Your task to perform on an android device: turn off wifi Image 0: 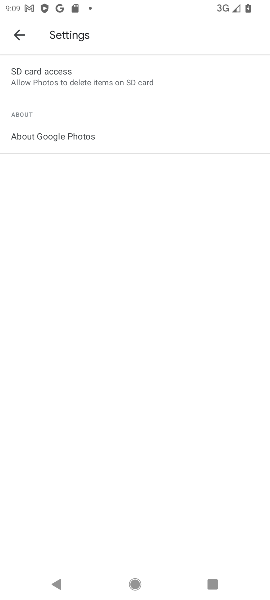
Step 0: press home button
Your task to perform on an android device: turn off wifi Image 1: 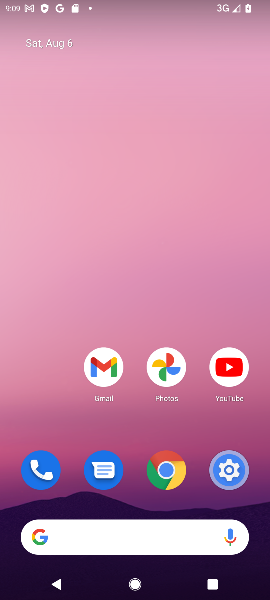
Step 1: drag from (159, 508) to (154, 23)
Your task to perform on an android device: turn off wifi Image 2: 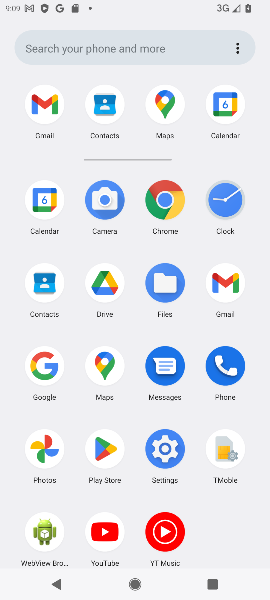
Step 2: click (178, 452)
Your task to perform on an android device: turn off wifi Image 3: 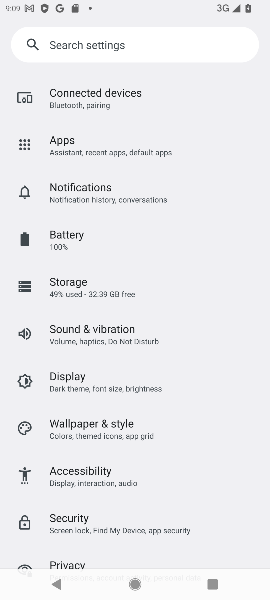
Step 3: drag from (102, 192) to (106, 468)
Your task to perform on an android device: turn off wifi Image 4: 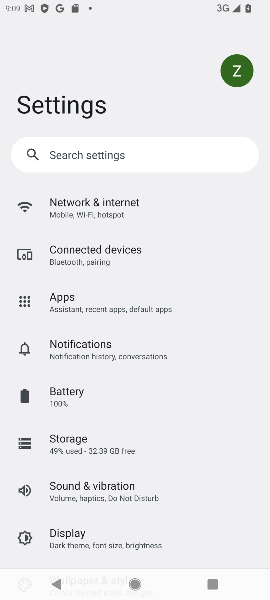
Step 4: click (122, 210)
Your task to perform on an android device: turn off wifi Image 5: 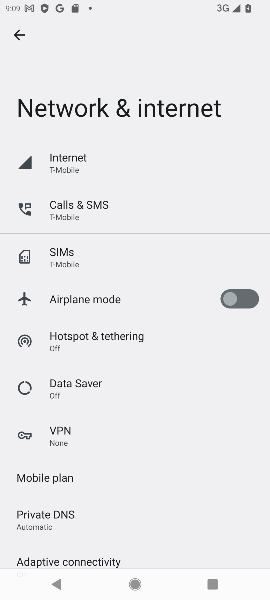
Step 5: click (80, 167)
Your task to perform on an android device: turn off wifi Image 6: 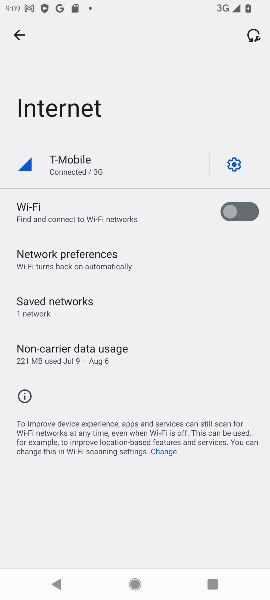
Step 6: task complete